Your task to perform on an android device: toggle translation in the chrome app Image 0: 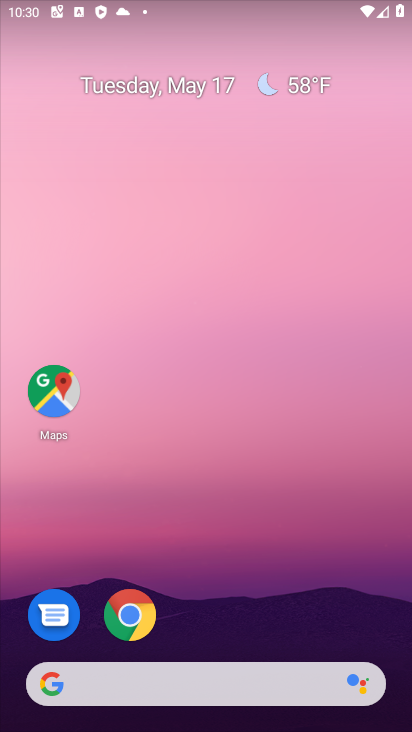
Step 0: click (130, 612)
Your task to perform on an android device: toggle translation in the chrome app Image 1: 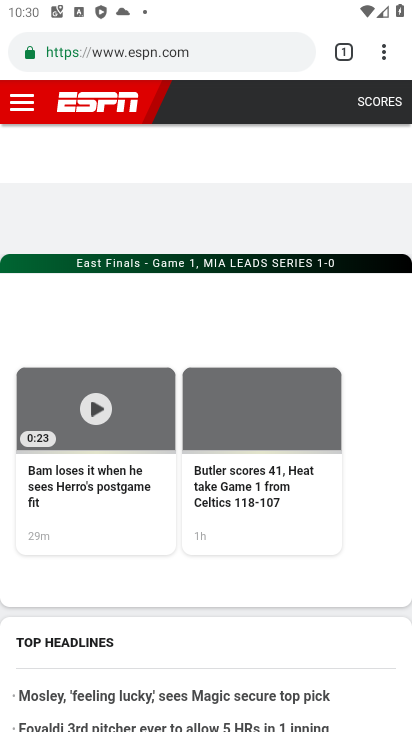
Step 1: click (381, 58)
Your task to perform on an android device: toggle translation in the chrome app Image 2: 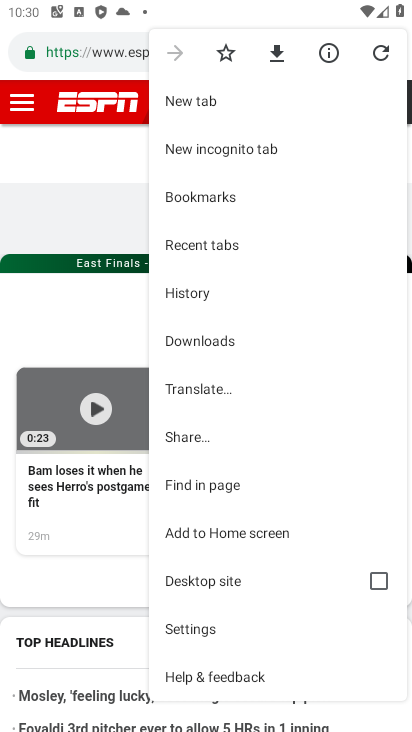
Step 2: drag from (296, 566) to (320, 250)
Your task to perform on an android device: toggle translation in the chrome app Image 3: 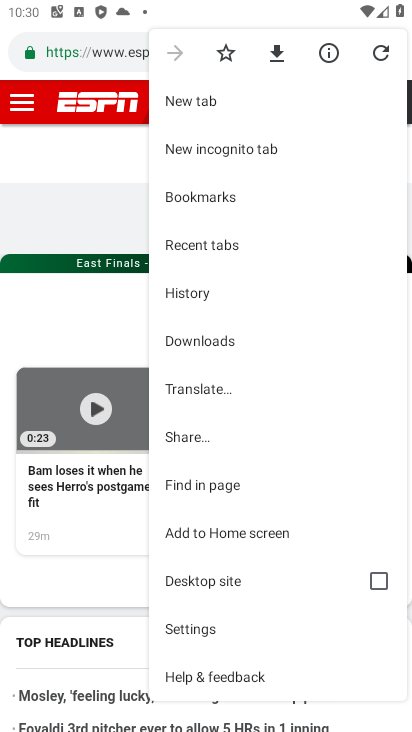
Step 3: click (191, 626)
Your task to perform on an android device: toggle translation in the chrome app Image 4: 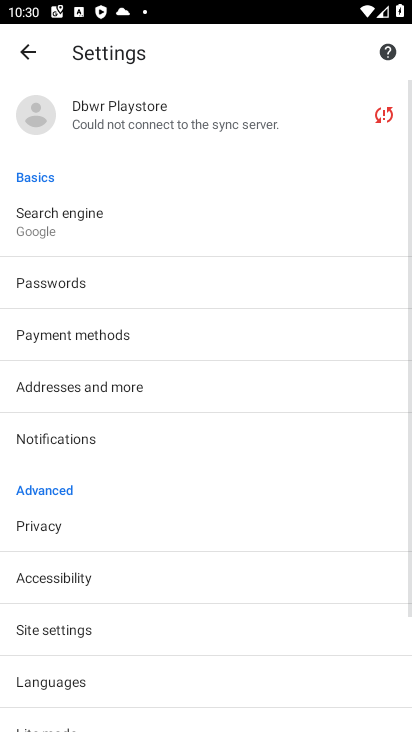
Step 4: drag from (175, 652) to (189, 348)
Your task to perform on an android device: toggle translation in the chrome app Image 5: 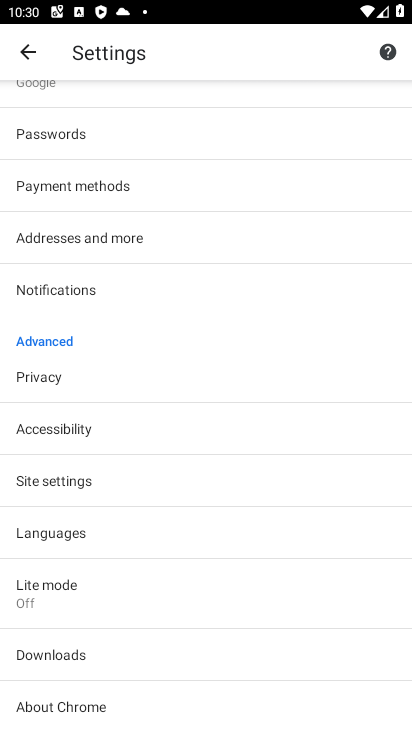
Step 5: click (54, 478)
Your task to perform on an android device: toggle translation in the chrome app Image 6: 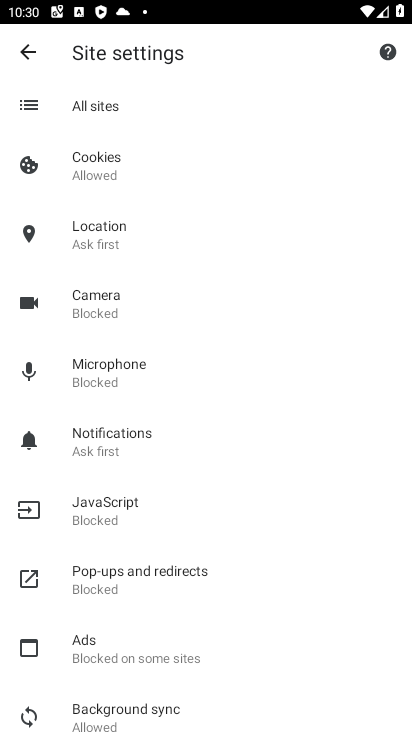
Step 6: click (103, 237)
Your task to perform on an android device: toggle translation in the chrome app Image 7: 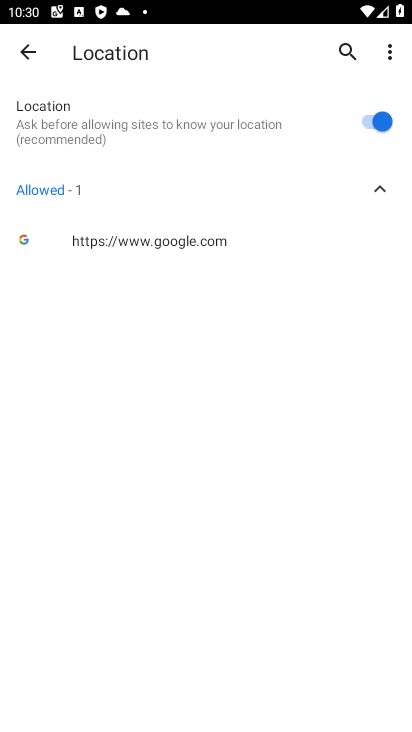
Step 7: click (368, 126)
Your task to perform on an android device: toggle translation in the chrome app Image 8: 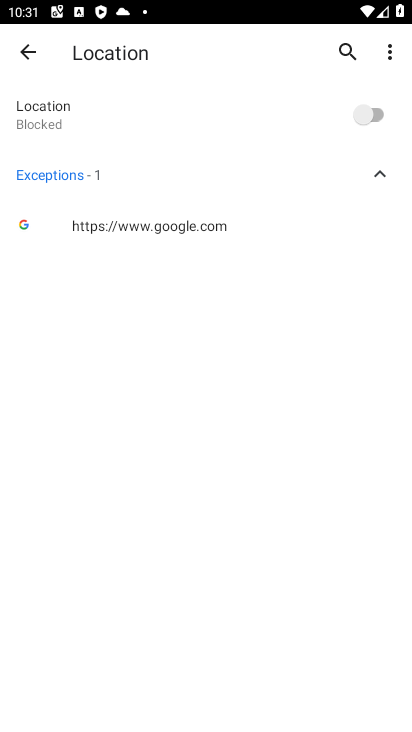
Step 8: task complete